Your task to perform on an android device: see sites visited before in the chrome app Image 0: 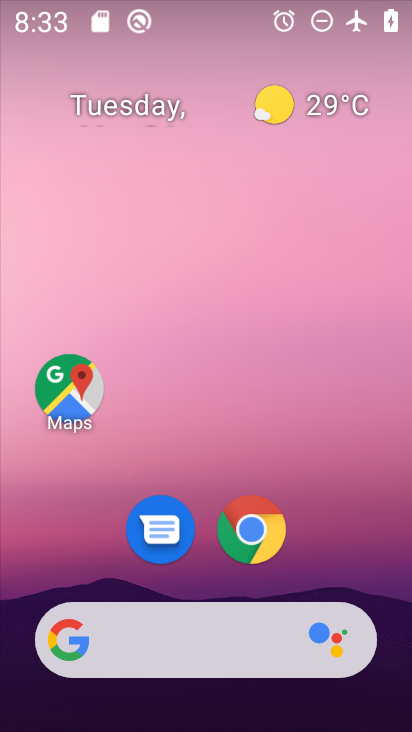
Step 0: drag from (395, 643) to (307, 88)
Your task to perform on an android device: see sites visited before in the chrome app Image 1: 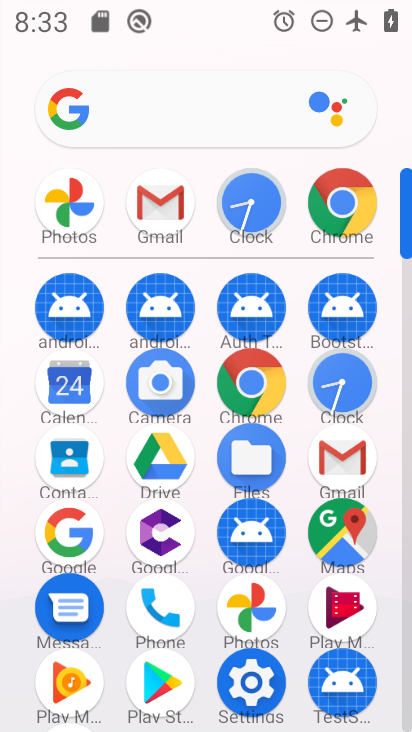
Step 1: click (355, 222)
Your task to perform on an android device: see sites visited before in the chrome app Image 2: 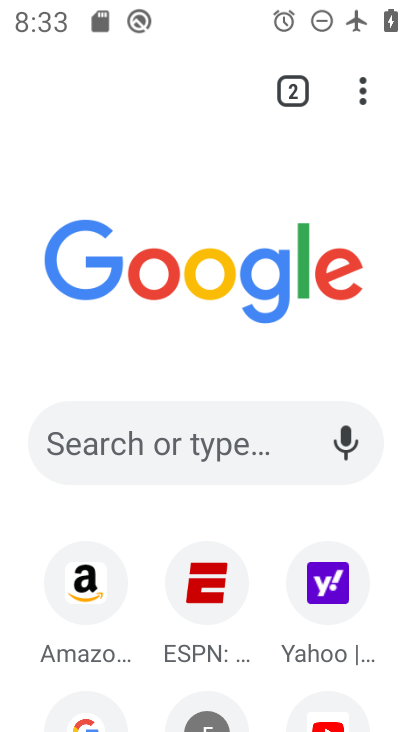
Step 2: click (362, 90)
Your task to perform on an android device: see sites visited before in the chrome app Image 3: 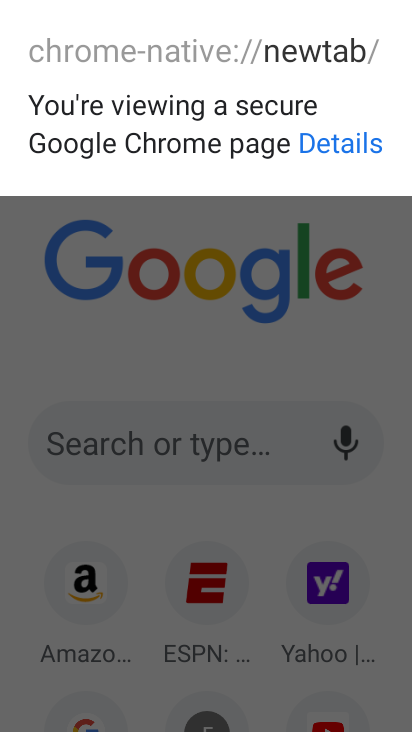
Step 3: press back button
Your task to perform on an android device: see sites visited before in the chrome app Image 4: 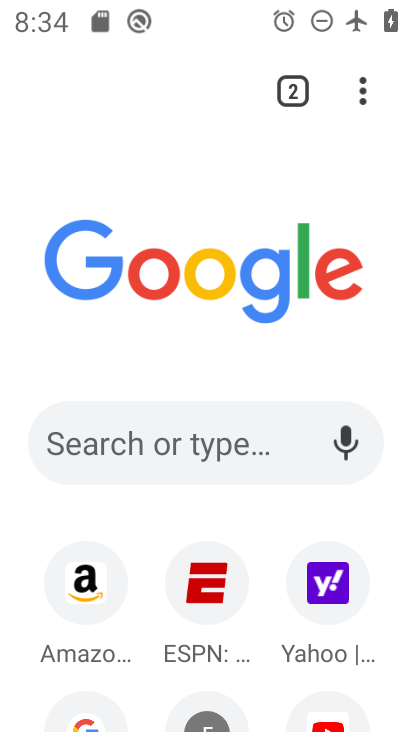
Step 4: click (359, 78)
Your task to perform on an android device: see sites visited before in the chrome app Image 5: 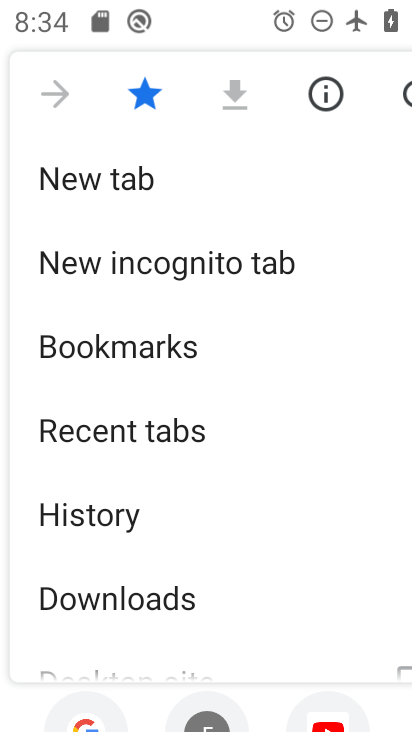
Step 5: click (118, 530)
Your task to perform on an android device: see sites visited before in the chrome app Image 6: 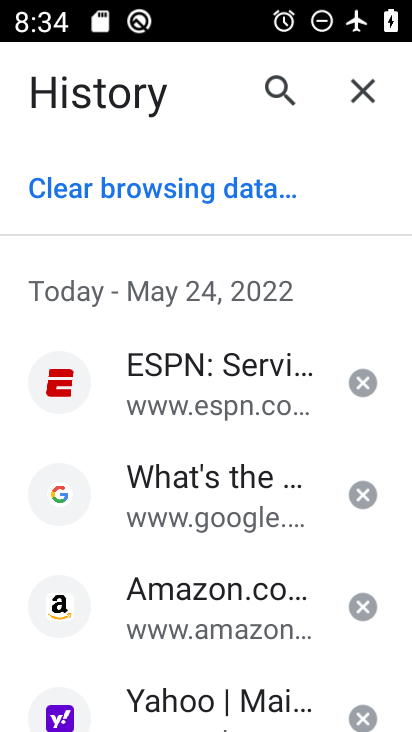
Step 6: click (178, 368)
Your task to perform on an android device: see sites visited before in the chrome app Image 7: 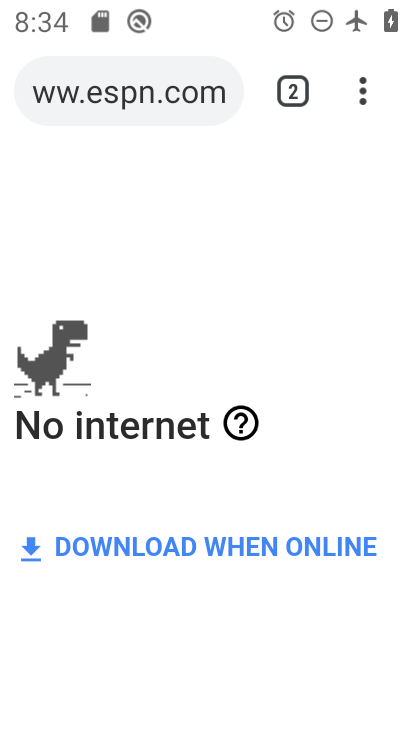
Step 7: task complete